Your task to perform on an android device: change alarm snooze length Image 0: 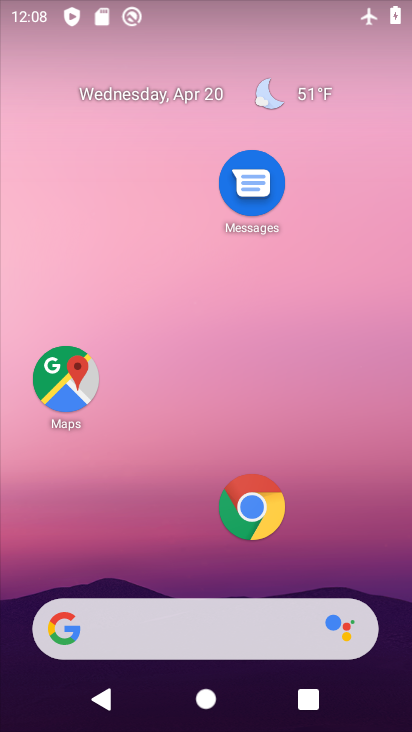
Step 0: drag from (190, 566) to (255, 0)
Your task to perform on an android device: change alarm snooze length Image 1: 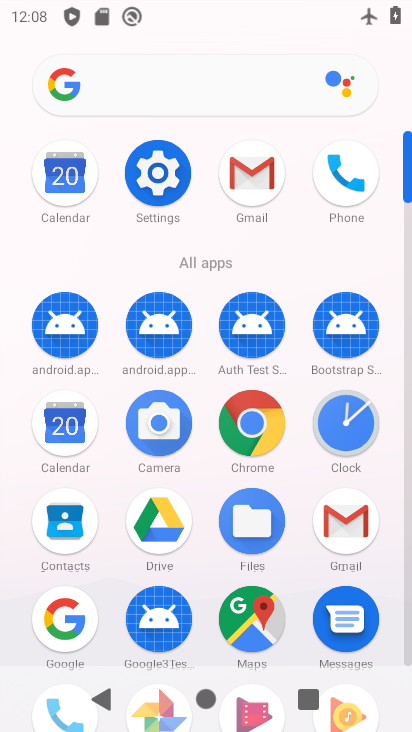
Step 1: click (349, 427)
Your task to perform on an android device: change alarm snooze length Image 2: 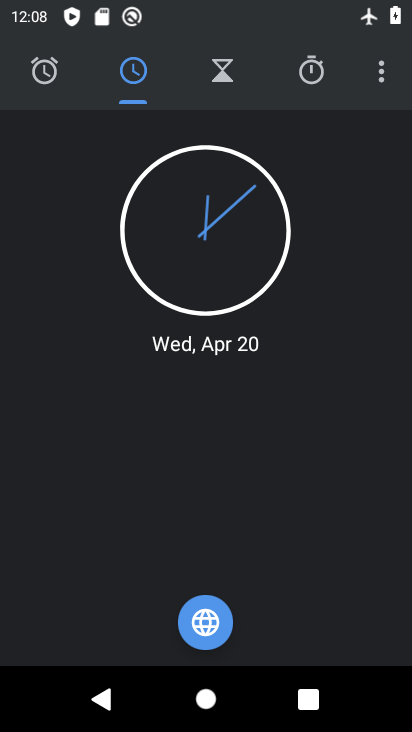
Step 2: click (384, 73)
Your task to perform on an android device: change alarm snooze length Image 3: 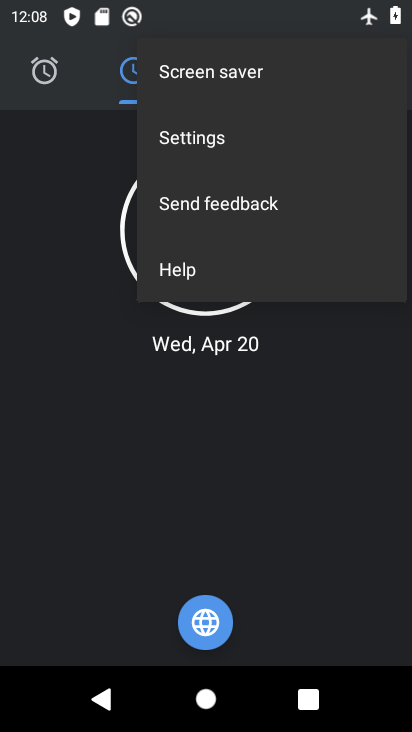
Step 3: click (223, 134)
Your task to perform on an android device: change alarm snooze length Image 4: 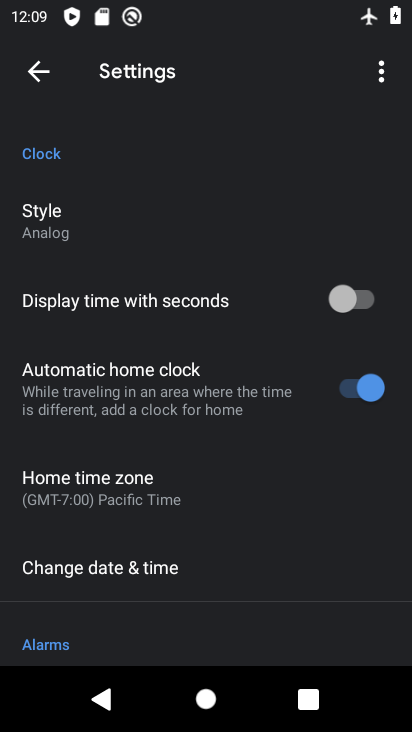
Step 4: drag from (196, 539) to (214, 353)
Your task to perform on an android device: change alarm snooze length Image 5: 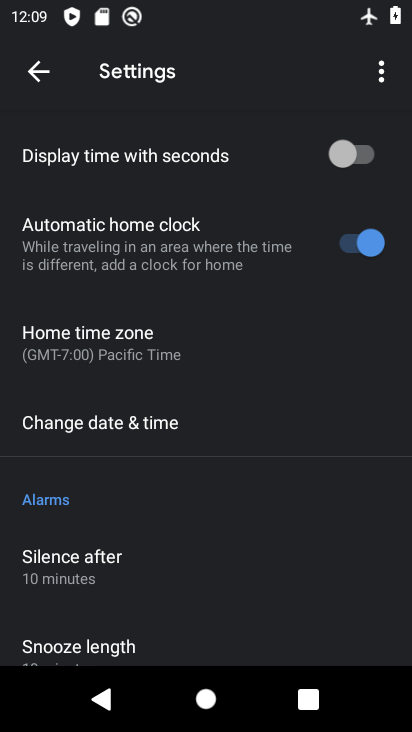
Step 5: drag from (170, 521) to (203, 389)
Your task to perform on an android device: change alarm snooze length Image 6: 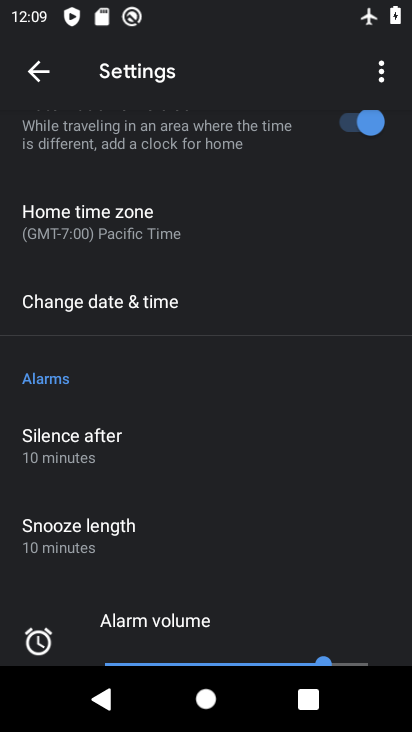
Step 6: drag from (181, 459) to (220, 373)
Your task to perform on an android device: change alarm snooze length Image 7: 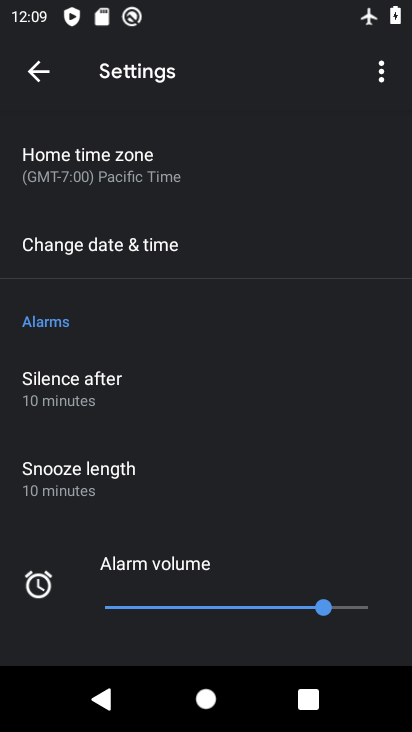
Step 7: click (96, 466)
Your task to perform on an android device: change alarm snooze length Image 8: 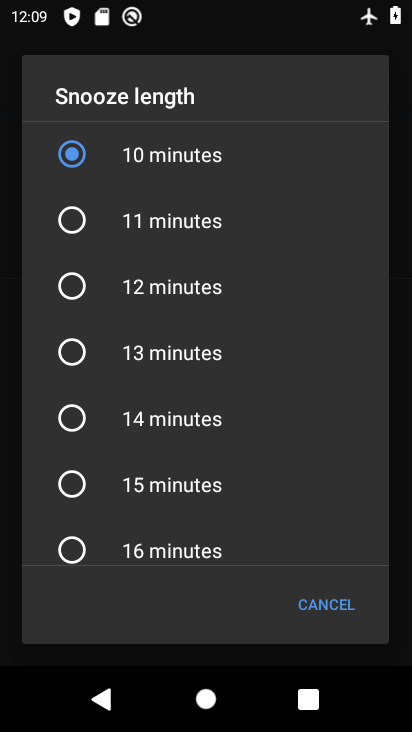
Step 8: click (61, 227)
Your task to perform on an android device: change alarm snooze length Image 9: 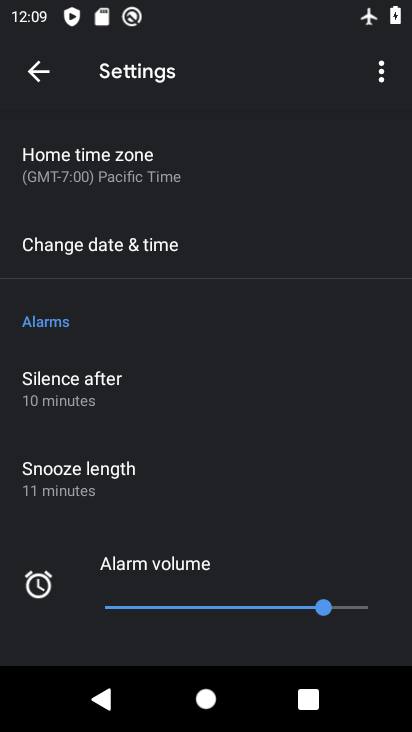
Step 9: task complete